Your task to perform on an android device: Go to location settings Image 0: 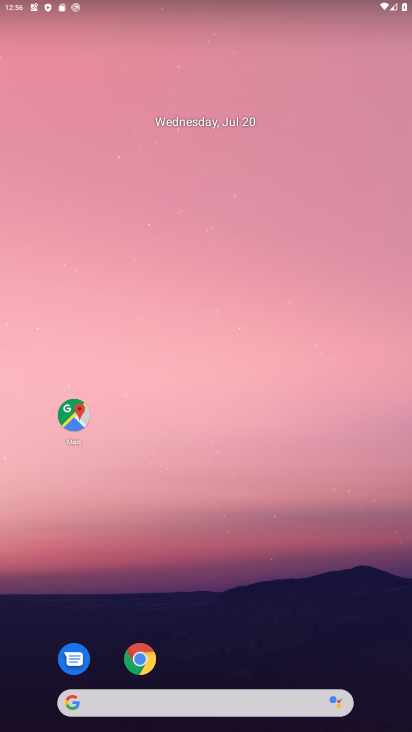
Step 0: drag from (340, 626) to (192, 109)
Your task to perform on an android device: Go to location settings Image 1: 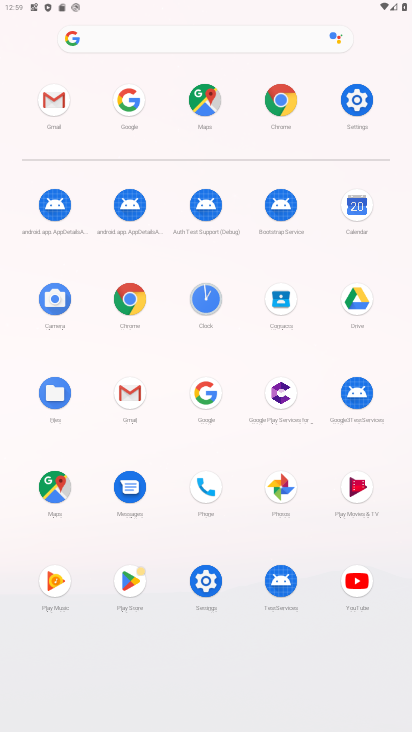
Step 1: click (195, 591)
Your task to perform on an android device: Go to location settings Image 2: 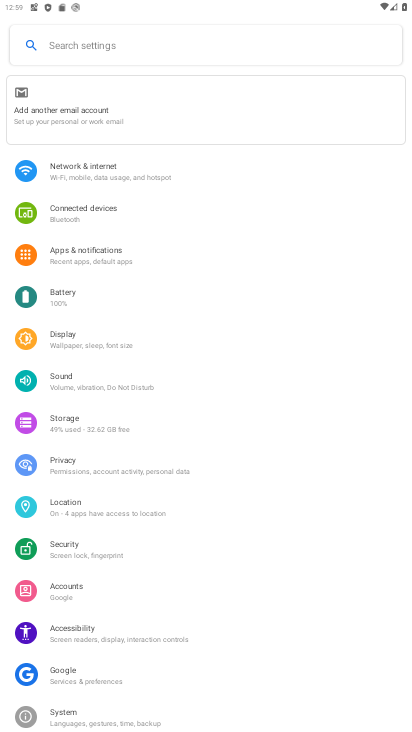
Step 2: click (76, 509)
Your task to perform on an android device: Go to location settings Image 3: 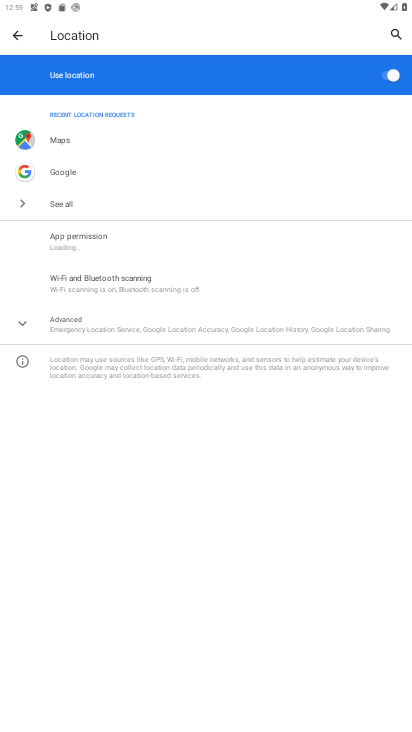
Step 3: task complete